Your task to perform on an android device: Go to Google maps Image 0: 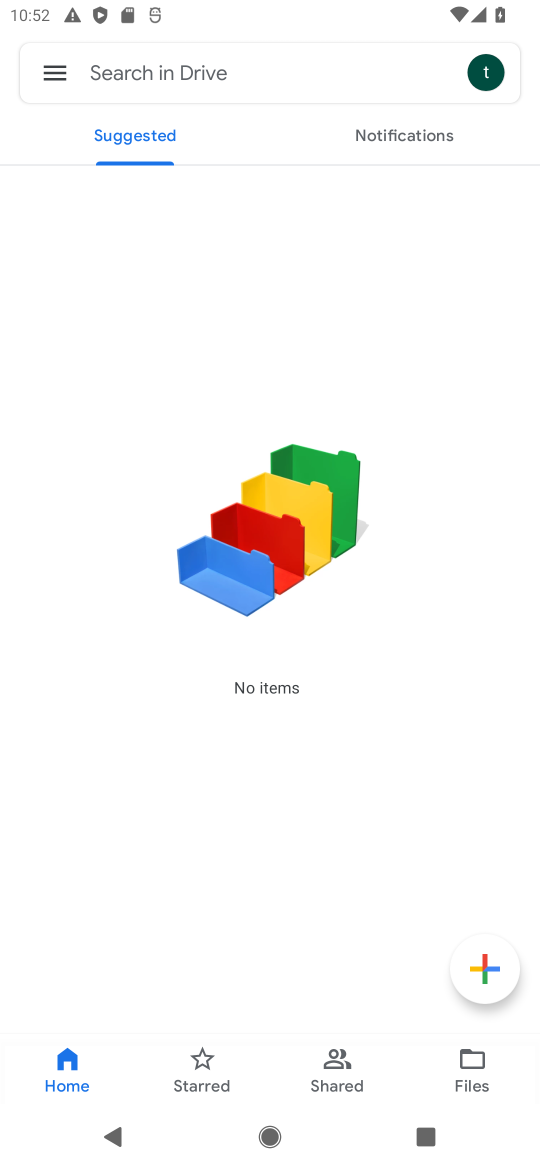
Step 0: press back button
Your task to perform on an android device: Go to Google maps Image 1: 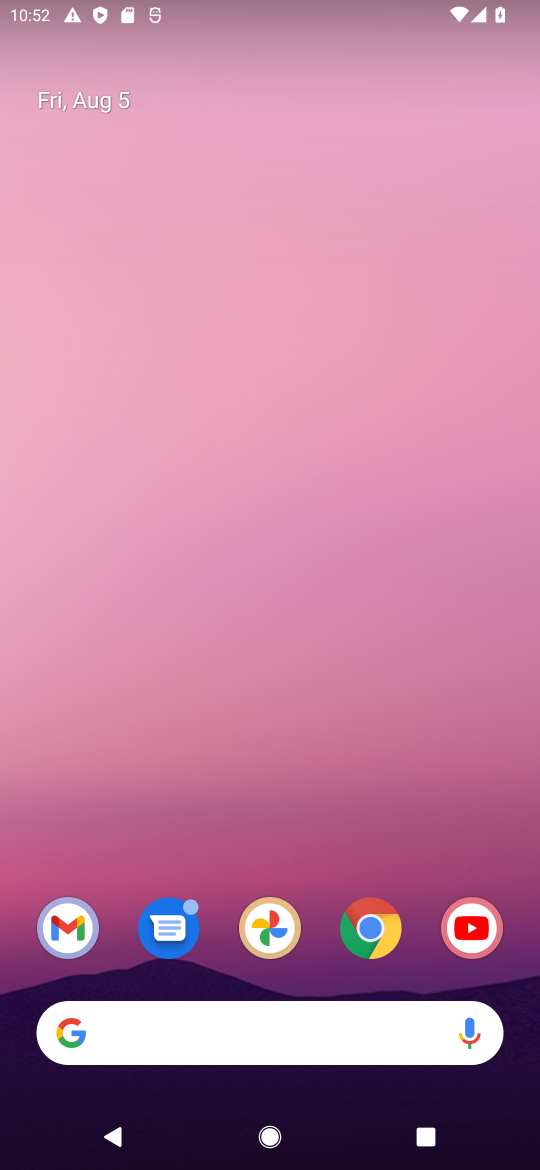
Step 1: drag from (251, 989) to (286, 226)
Your task to perform on an android device: Go to Google maps Image 2: 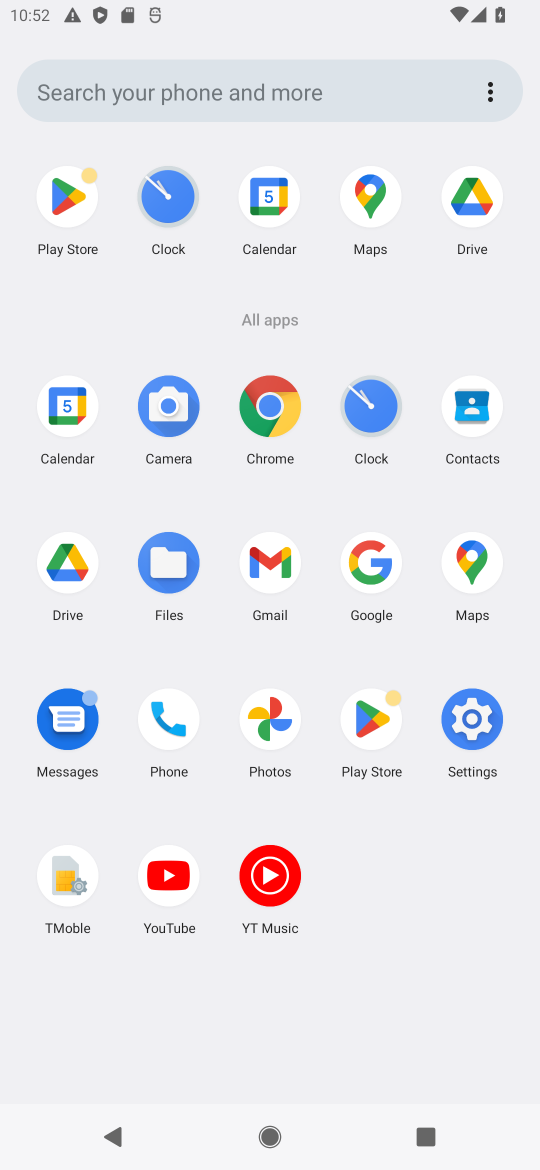
Step 2: click (444, 547)
Your task to perform on an android device: Go to Google maps Image 3: 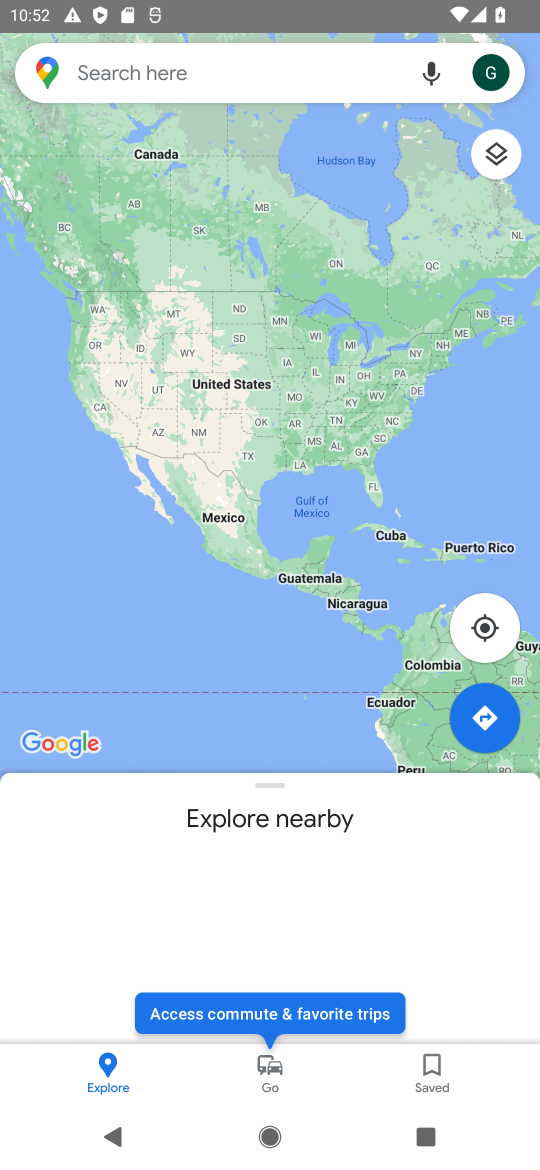
Step 3: task complete